Your task to perform on an android device: Clear all items from cart on walmart.com. Image 0: 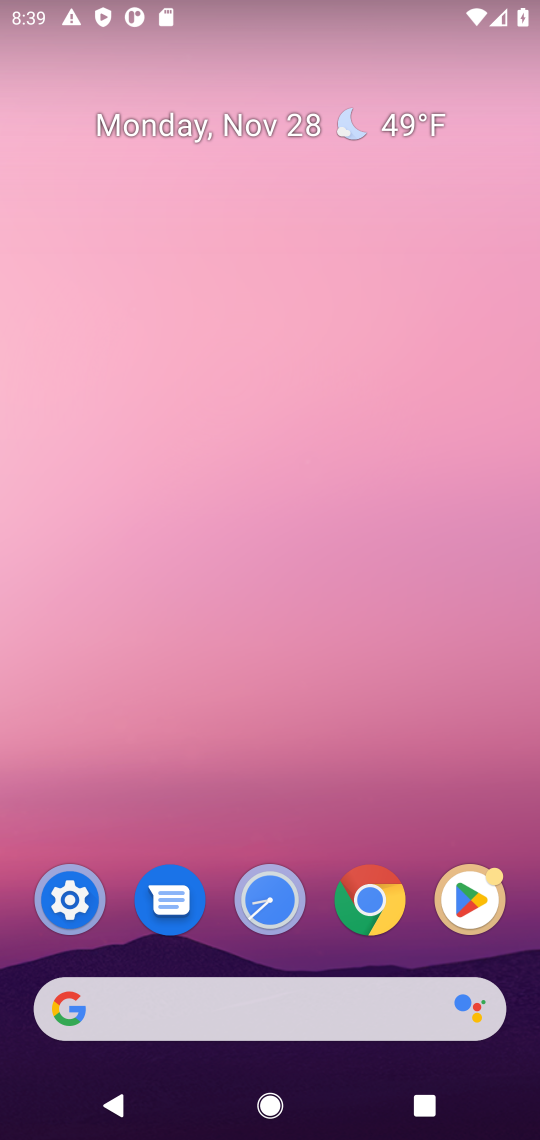
Step 0: click (348, 994)
Your task to perform on an android device: Clear all items from cart on walmart.com. Image 1: 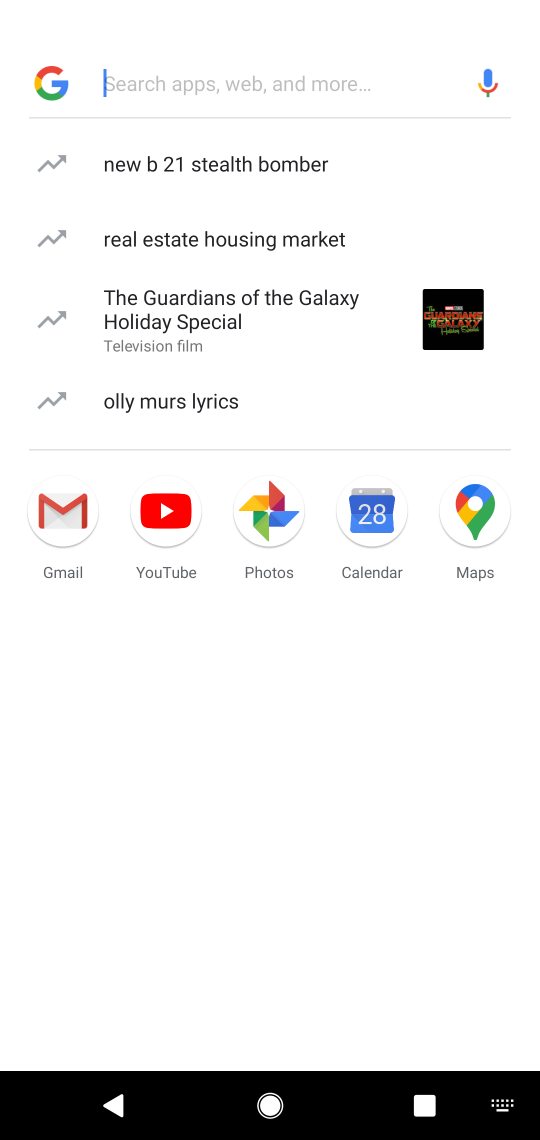
Step 1: type "walmart"
Your task to perform on an android device: Clear all items from cart on walmart.com. Image 2: 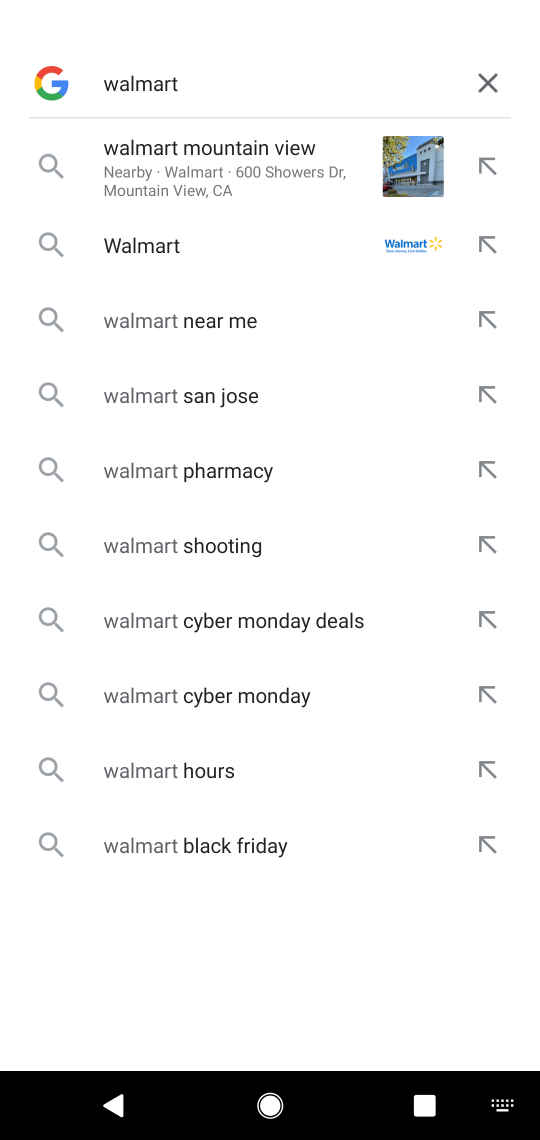
Step 2: click (166, 152)
Your task to perform on an android device: Clear all items from cart on walmart.com. Image 3: 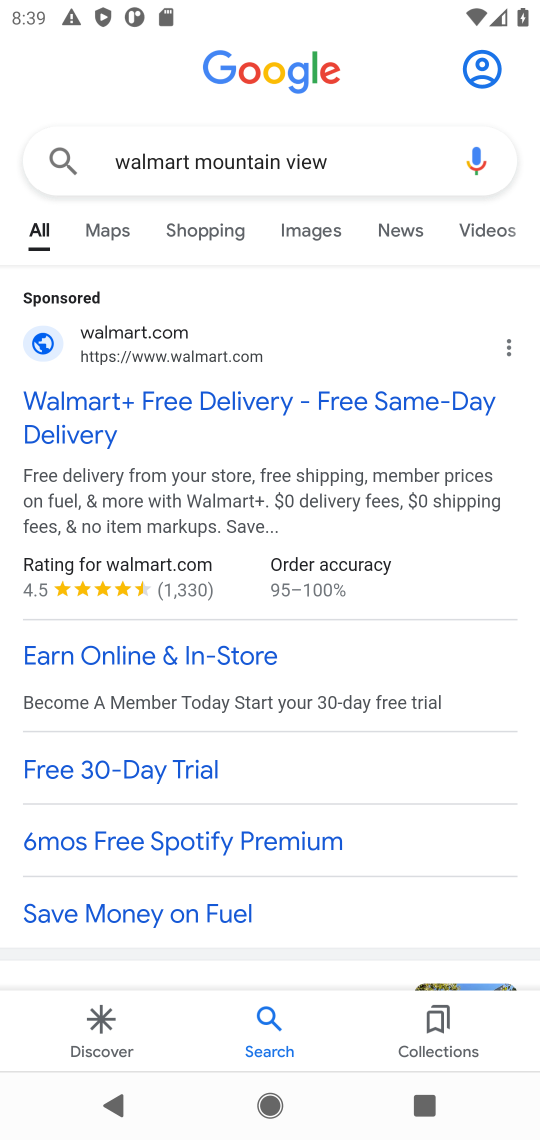
Step 3: click (185, 449)
Your task to perform on an android device: Clear all items from cart on walmart.com. Image 4: 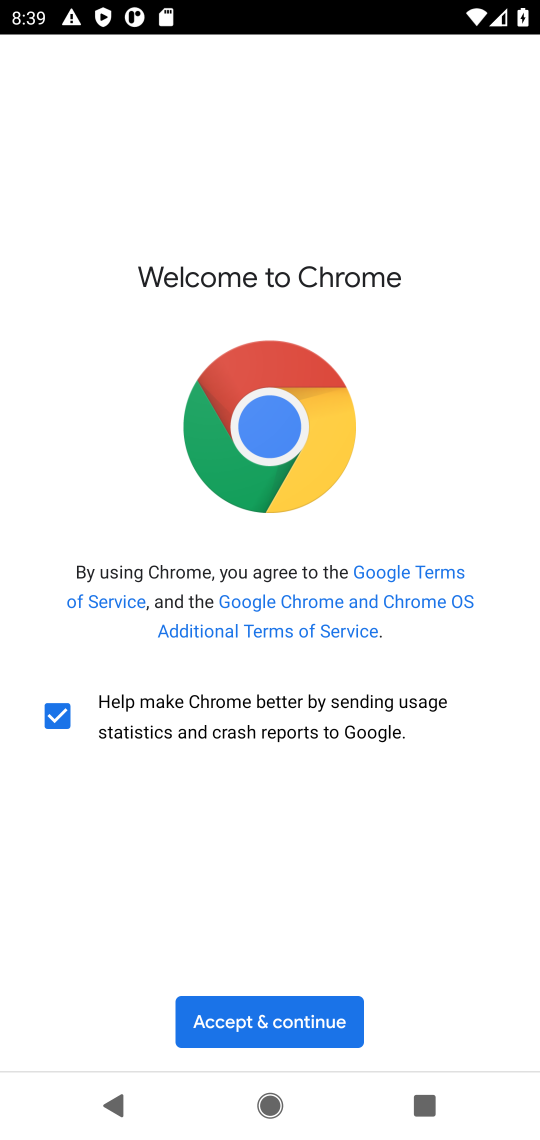
Step 4: click (246, 1024)
Your task to perform on an android device: Clear all items from cart on walmart.com. Image 5: 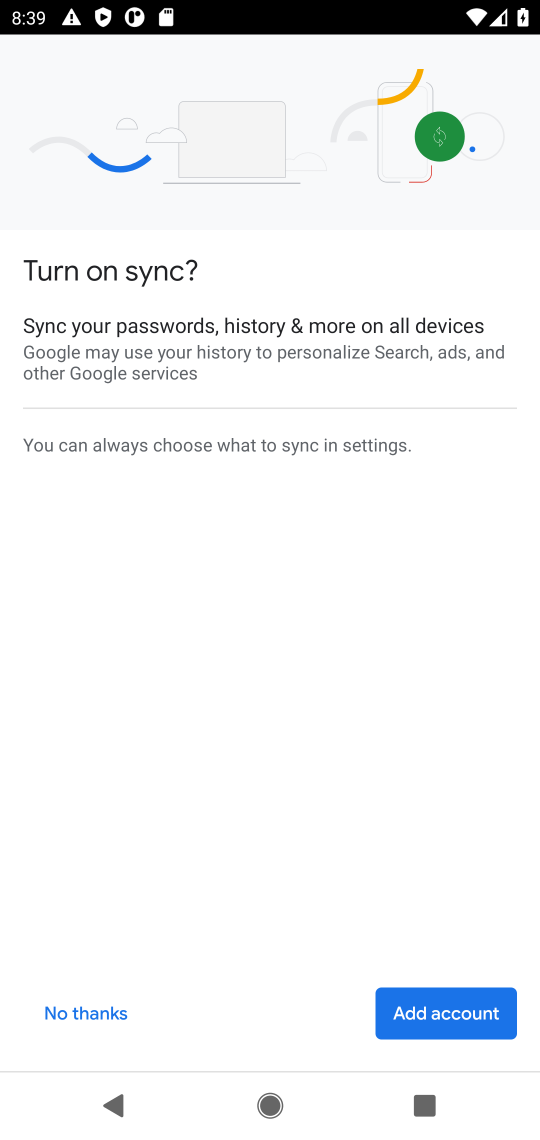
Step 5: click (72, 1012)
Your task to perform on an android device: Clear all items from cart on walmart.com. Image 6: 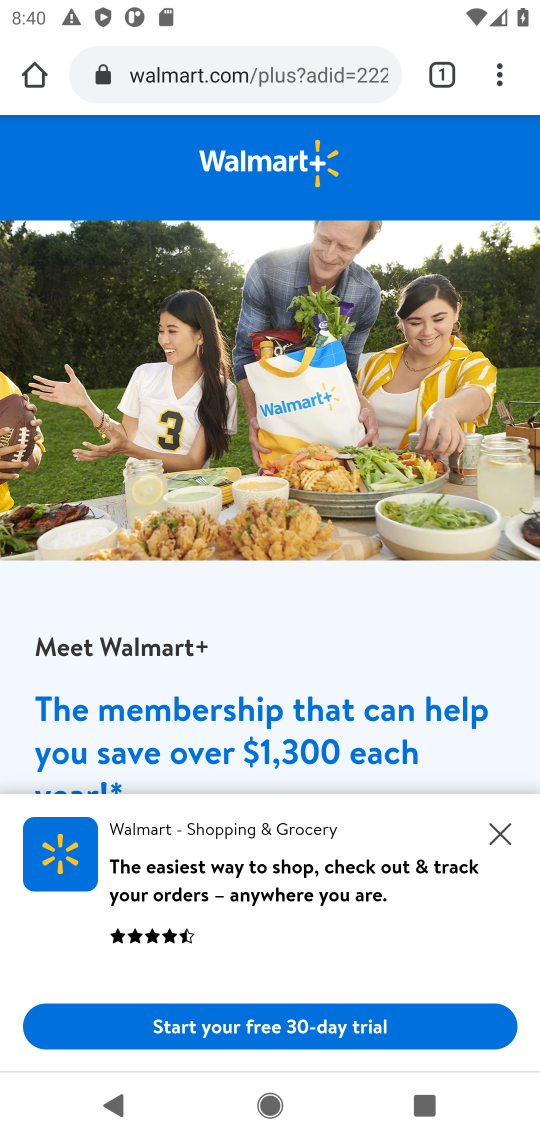
Step 6: click (499, 826)
Your task to perform on an android device: Clear all items from cart on walmart.com. Image 7: 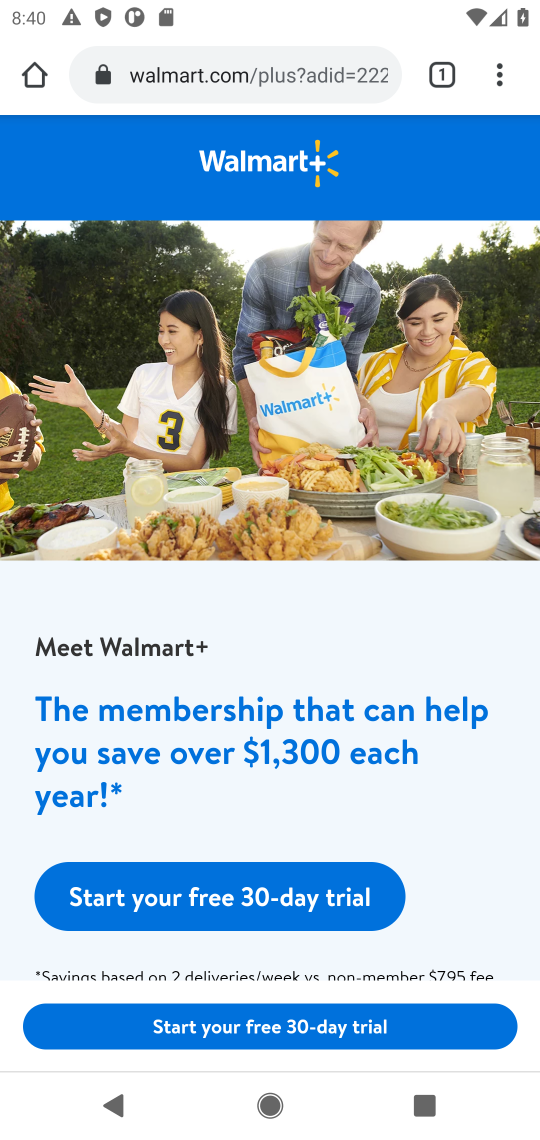
Step 7: click (253, 924)
Your task to perform on an android device: Clear all items from cart on walmart.com. Image 8: 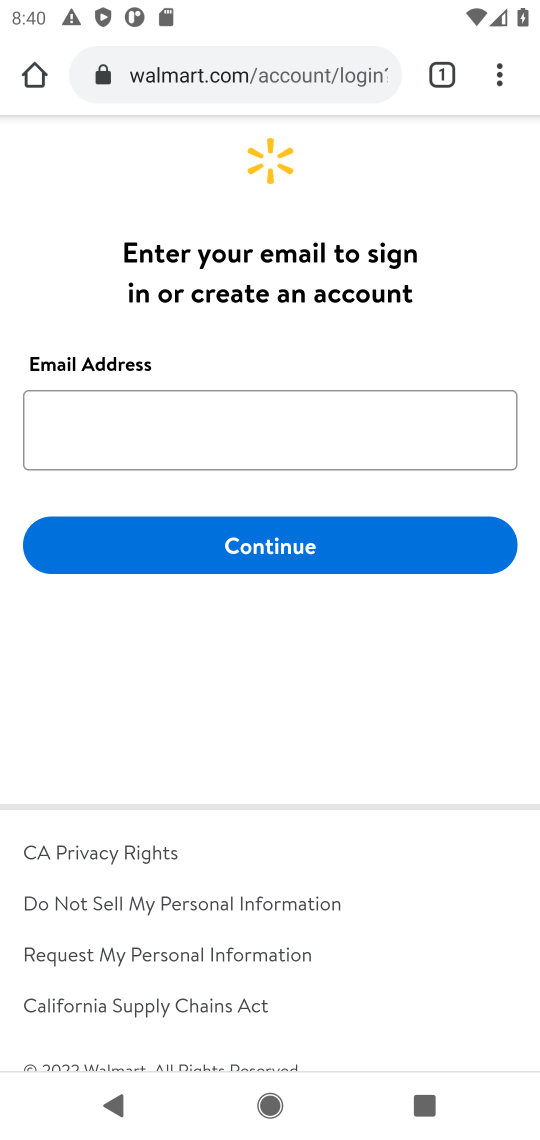
Step 8: task complete